Your task to perform on an android device: When is my next appointment? Image 0: 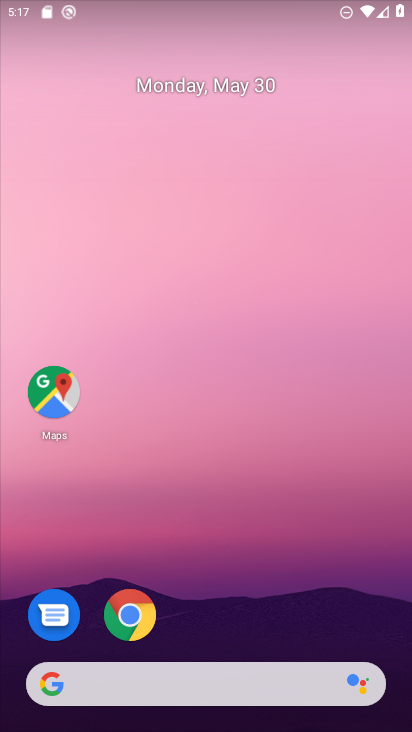
Step 0: click (191, 89)
Your task to perform on an android device: When is my next appointment? Image 1: 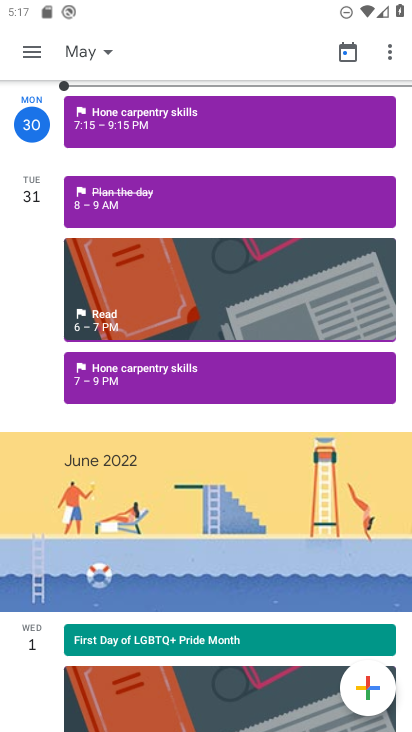
Step 1: task complete